Your task to perform on an android device: Search for sushi restaurants on Maps Image 0: 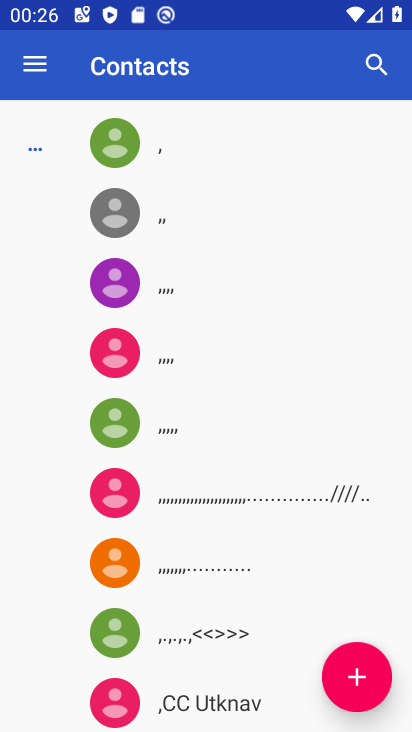
Step 0: press home button
Your task to perform on an android device: Search for sushi restaurants on Maps Image 1: 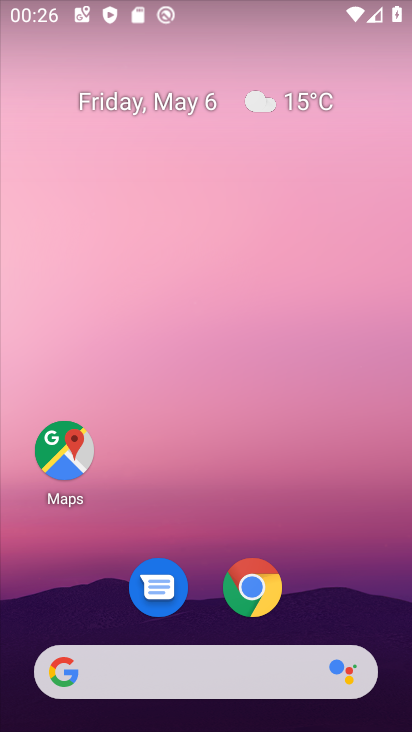
Step 1: click (42, 458)
Your task to perform on an android device: Search for sushi restaurants on Maps Image 2: 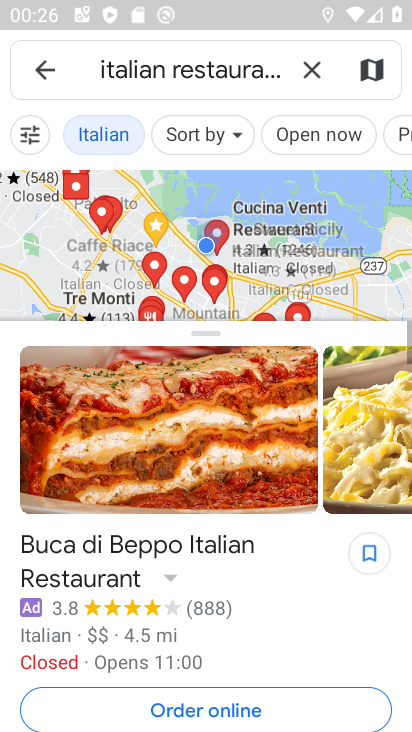
Step 2: click (308, 67)
Your task to perform on an android device: Search for sushi restaurants on Maps Image 3: 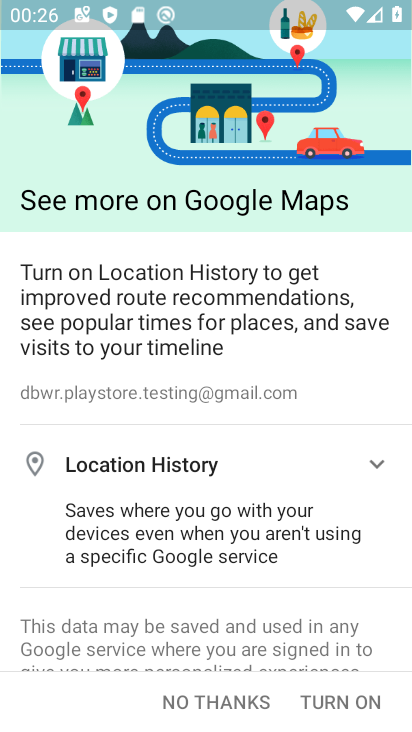
Step 3: click (308, 699)
Your task to perform on an android device: Search for sushi restaurants on Maps Image 4: 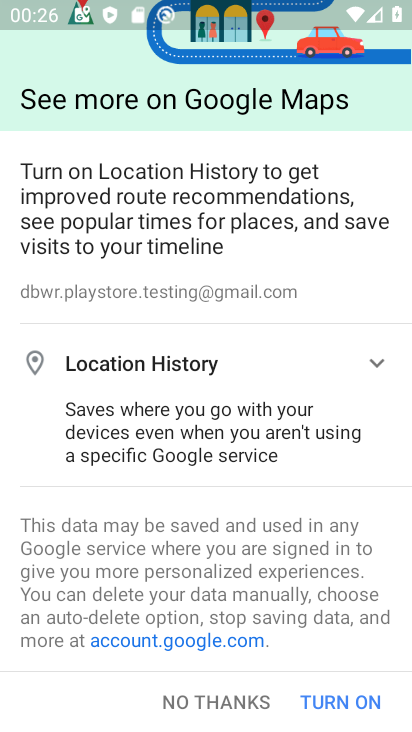
Step 4: click (308, 699)
Your task to perform on an android device: Search for sushi restaurants on Maps Image 5: 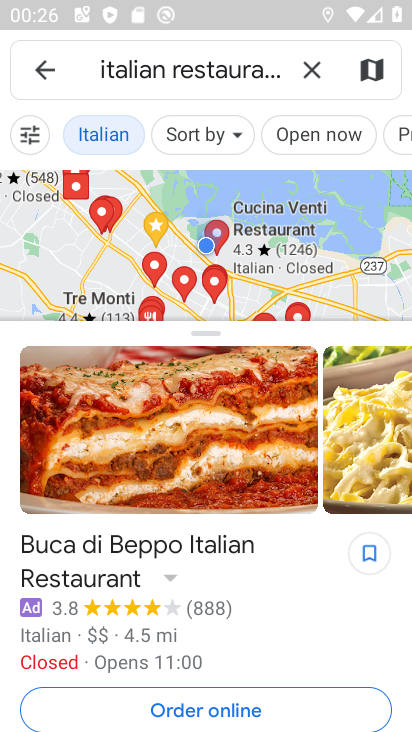
Step 5: click (307, 67)
Your task to perform on an android device: Search for sushi restaurants on Maps Image 6: 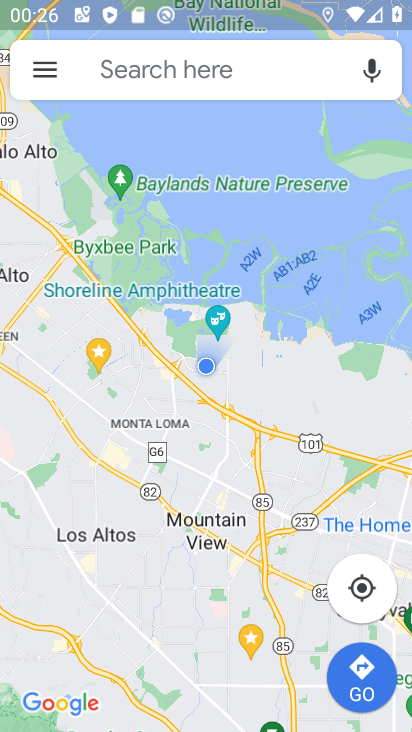
Step 6: click (155, 78)
Your task to perform on an android device: Search for sushi restaurants on Maps Image 7: 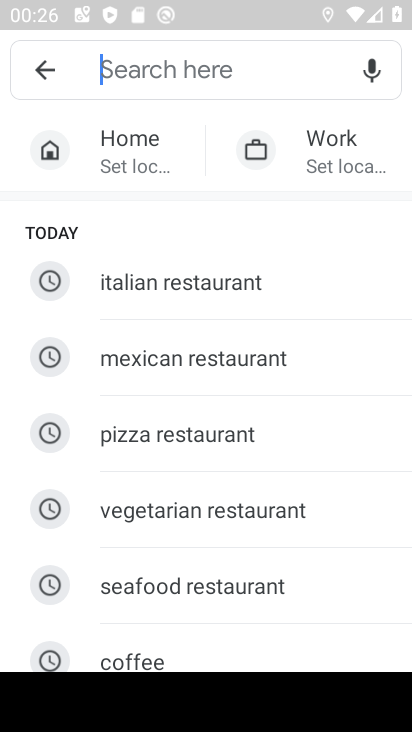
Step 7: type "sushi restaurants"
Your task to perform on an android device: Search for sushi restaurants on Maps Image 8: 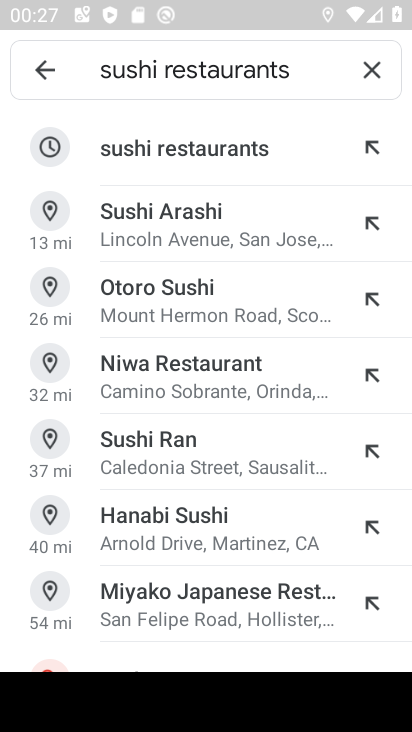
Step 8: click (214, 145)
Your task to perform on an android device: Search for sushi restaurants on Maps Image 9: 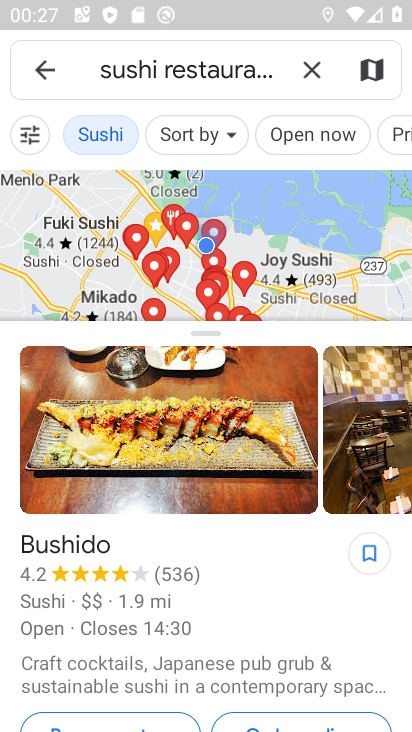
Step 9: task complete